Your task to perform on an android device: check android version Image 0: 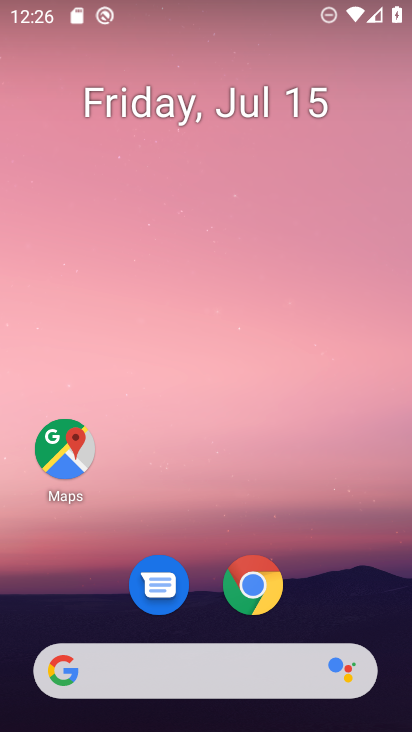
Step 0: drag from (292, 529) to (258, 0)
Your task to perform on an android device: check android version Image 1: 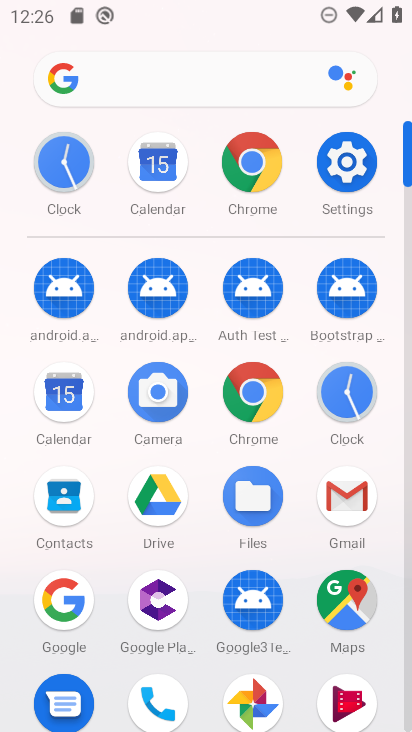
Step 1: click (365, 161)
Your task to perform on an android device: check android version Image 2: 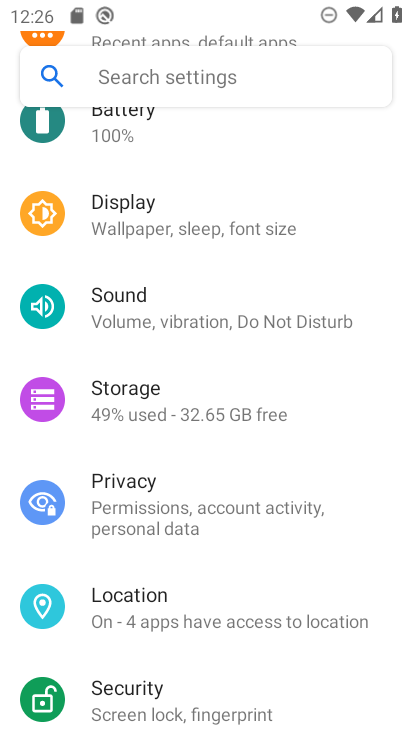
Step 2: drag from (234, 600) to (257, 9)
Your task to perform on an android device: check android version Image 3: 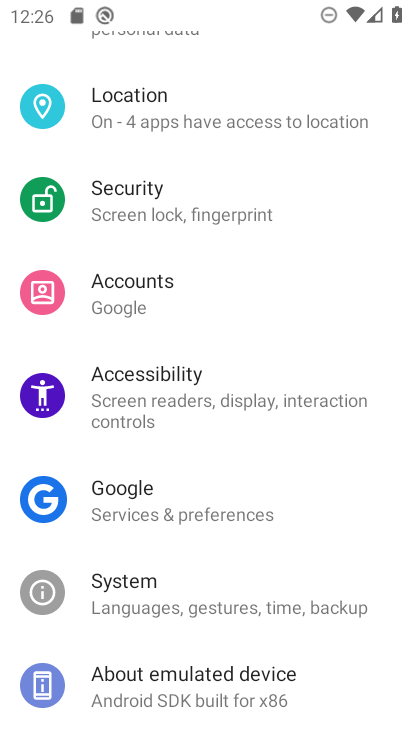
Step 3: click (210, 694)
Your task to perform on an android device: check android version Image 4: 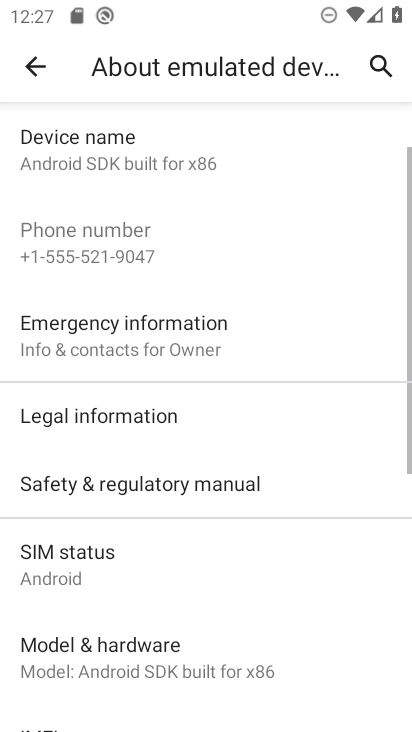
Step 4: drag from (260, 576) to (305, 178)
Your task to perform on an android device: check android version Image 5: 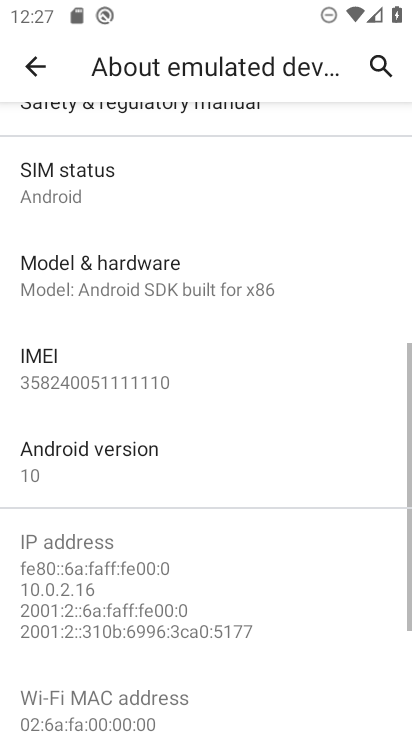
Step 5: click (92, 459)
Your task to perform on an android device: check android version Image 6: 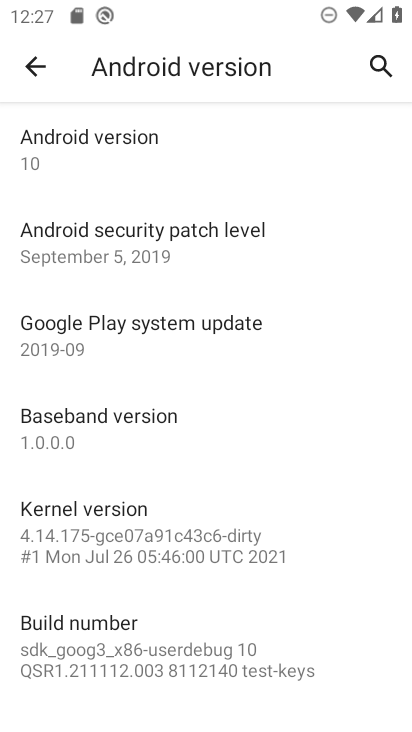
Step 6: task complete